Your task to perform on an android device: turn on wifi Image 0: 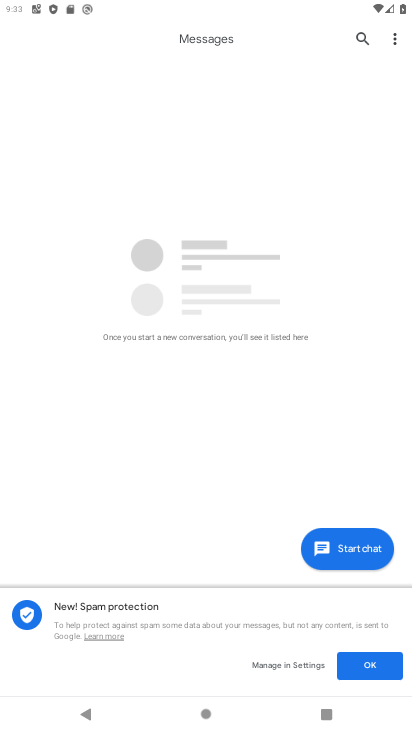
Step 0: press home button
Your task to perform on an android device: turn on wifi Image 1: 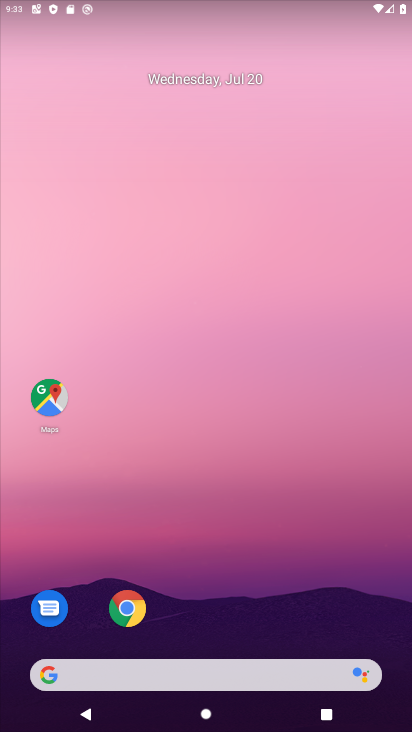
Step 1: drag from (229, 715) to (151, 162)
Your task to perform on an android device: turn on wifi Image 2: 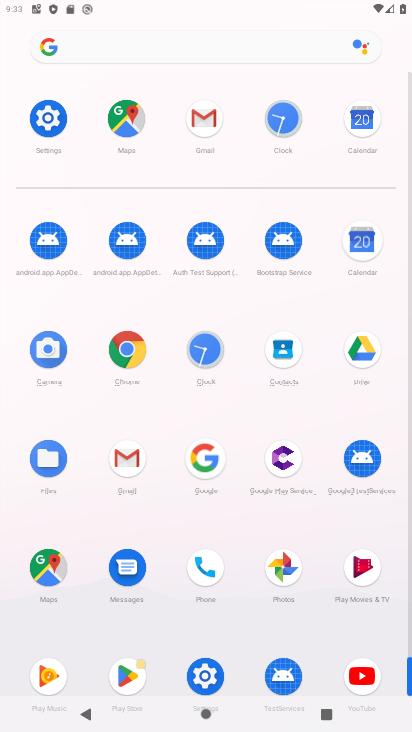
Step 2: click (41, 115)
Your task to perform on an android device: turn on wifi Image 3: 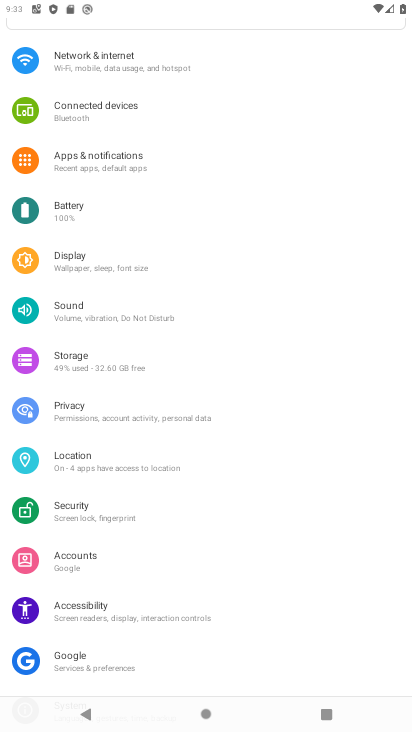
Step 3: click (190, 68)
Your task to perform on an android device: turn on wifi Image 4: 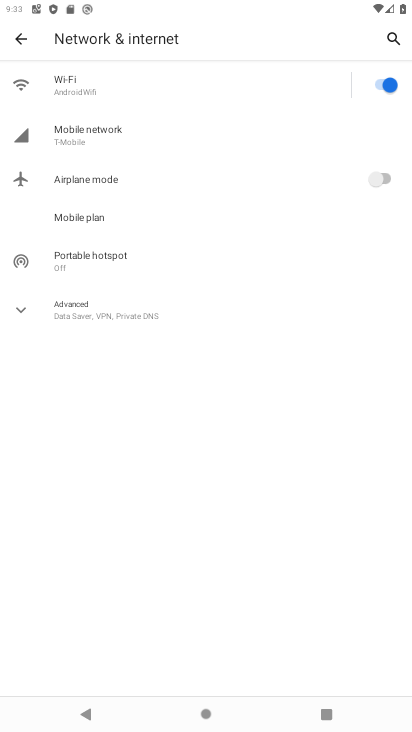
Step 4: task complete